Your task to perform on an android device: Open wifi settings Image 0: 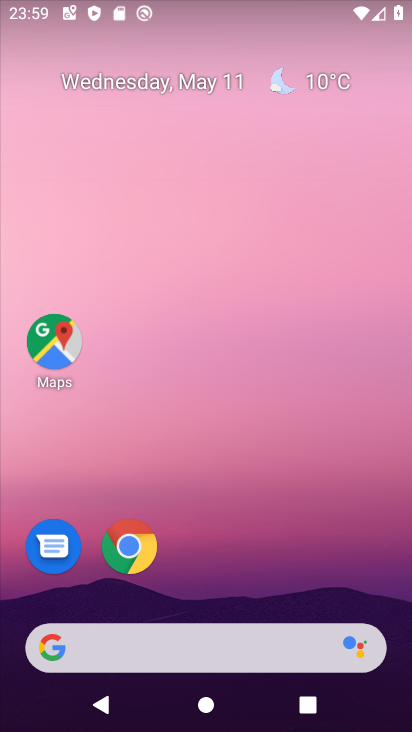
Step 0: drag from (208, 588) to (233, 171)
Your task to perform on an android device: Open wifi settings Image 1: 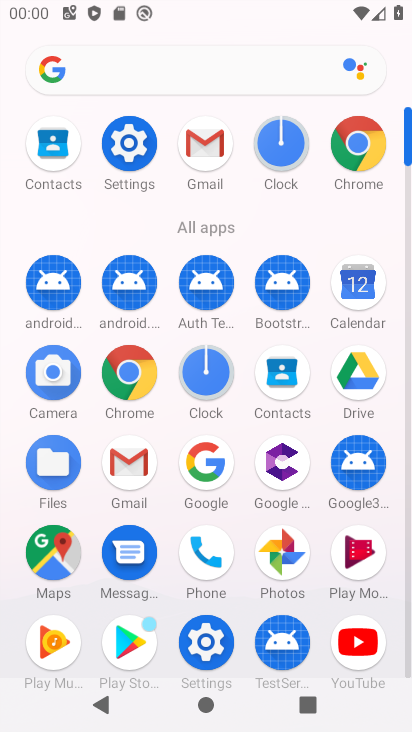
Step 1: click (203, 643)
Your task to perform on an android device: Open wifi settings Image 2: 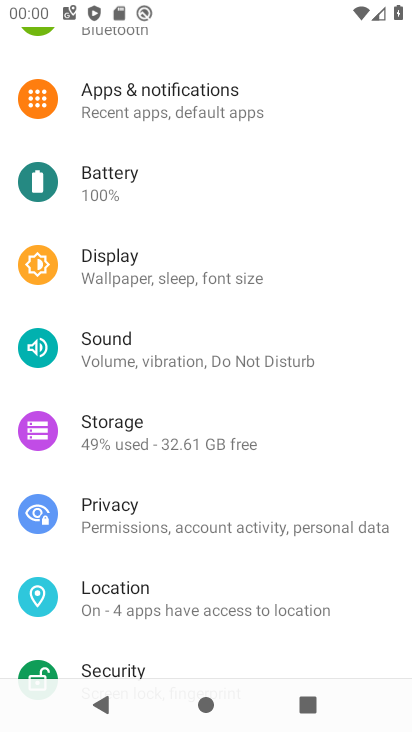
Step 2: drag from (202, 192) to (198, 654)
Your task to perform on an android device: Open wifi settings Image 3: 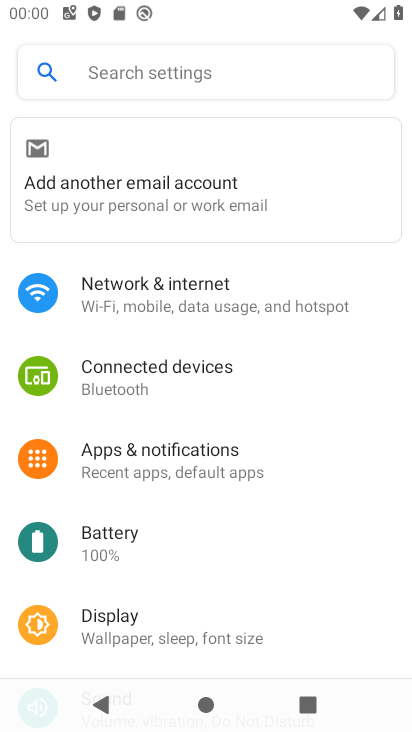
Step 3: click (193, 304)
Your task to perform on an android device: Open wifi settings Image 4: 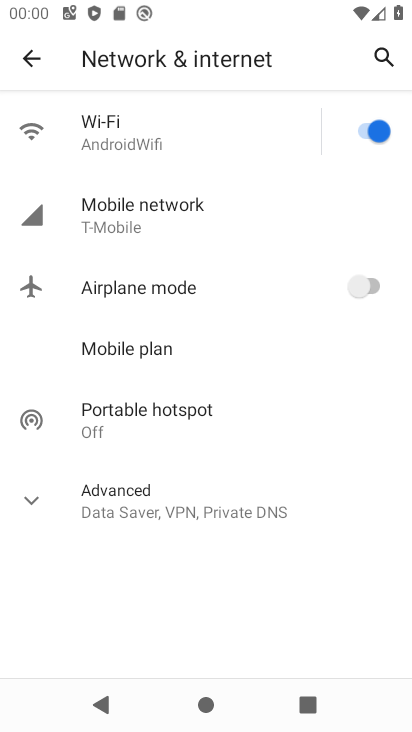
Step 4: click (144, 137)
Your task to perform on an android device: Open wifi settings Image 5: 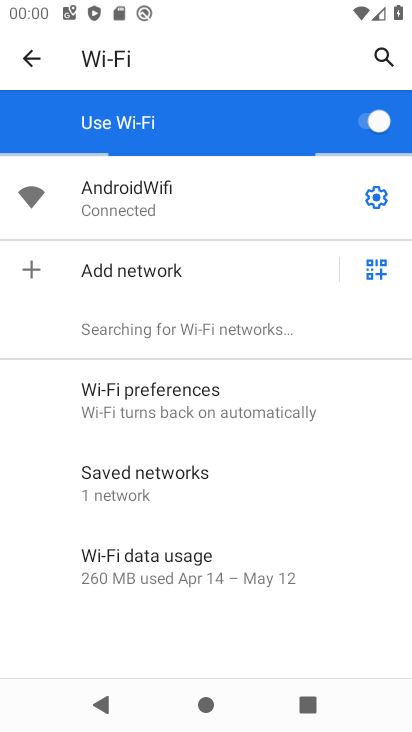
Step 5: task complete